Your task to perform on an android device: When is my next meeting? Image 0: 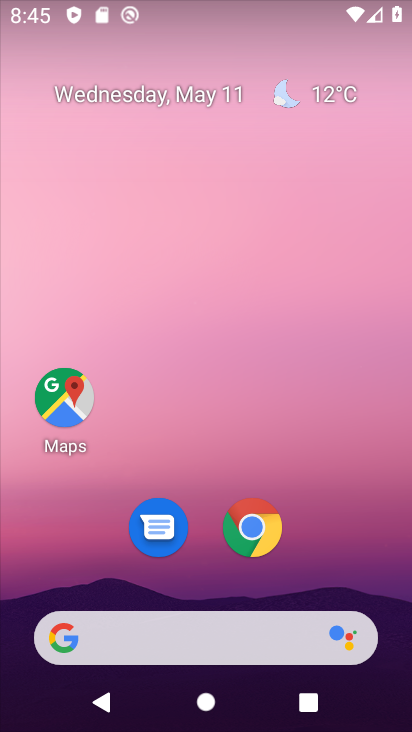
Step 0: drag from (345, 538) to (258, 21)
Your task to perform on an android device: When is my next meeting? Image 1: 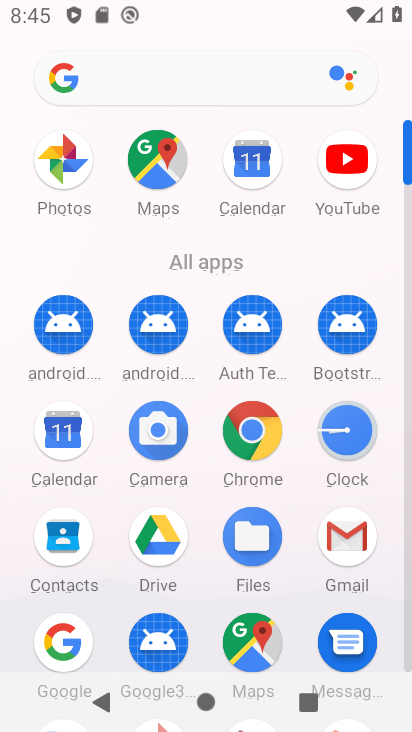
Step 1: click (40, 438)
Your task to perform on an android device: When is my next meeting? Image 2: 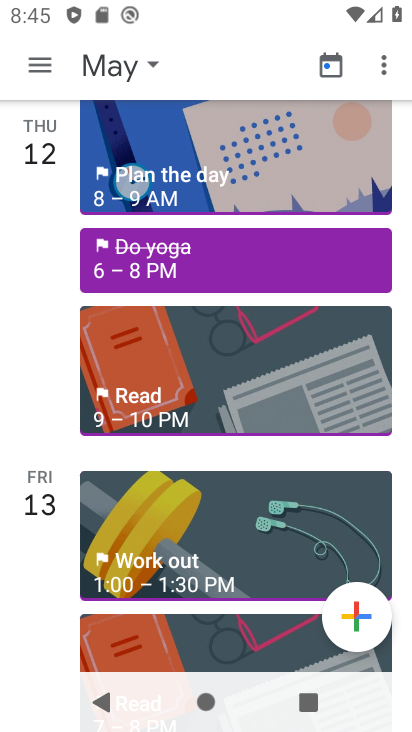
Step 2: task complete